Your task to perform on an android device: Open the map Image 0: 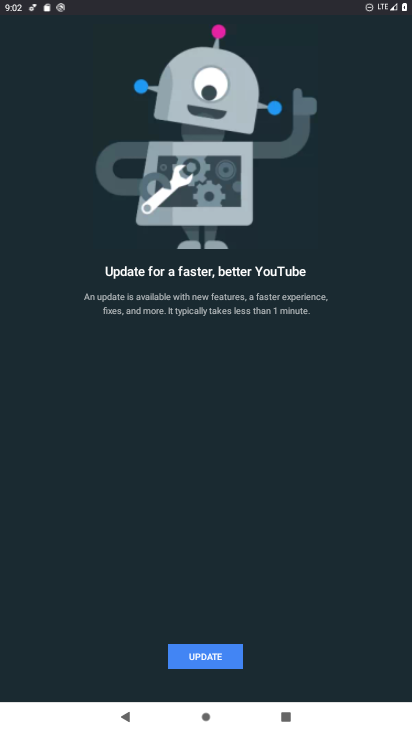
Step 0: press home button
Your task to perform on an android device: Open the map Image 1: 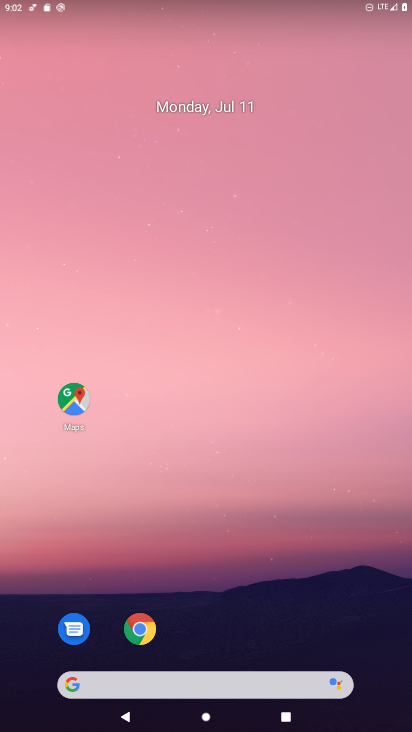
Step 1: click (79, 398)
Your task to perform on an android device: Open the map Image 2: 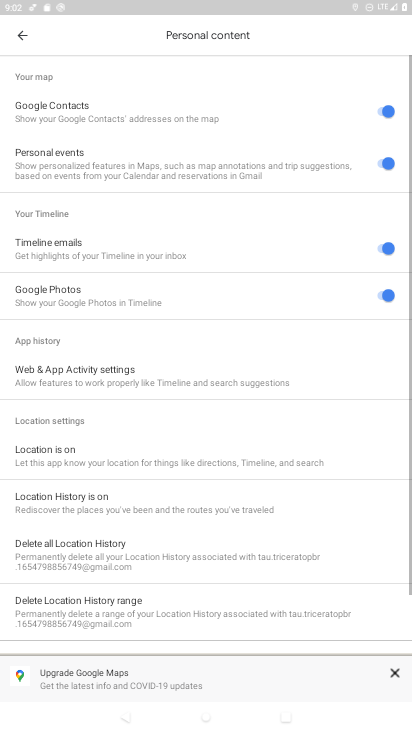
Step 2: task complete